Your task to perform on an android device: turn off airplane mode Image 0: 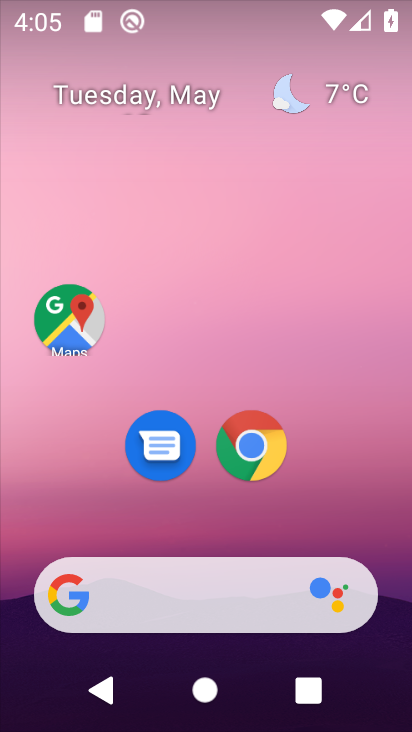
Step 0: drag from (250, 506) to (390, 436)
Your task to perform on an android device: turn off airplane mode Image 1: 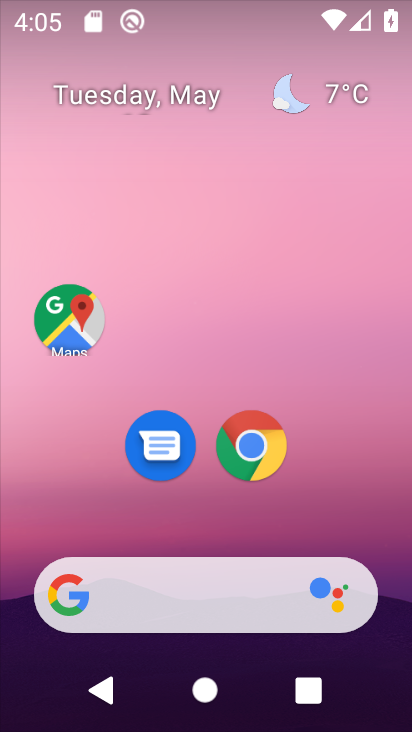
Step 1: click (335, 224)
Your task to perform on an android device: turn off airplane mode Image 2: 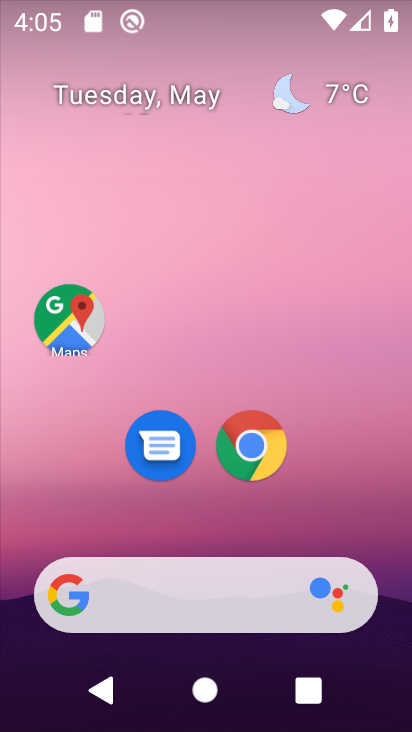
Step 2: drag from (302, 429) to (321, 16)
Your task to perform on an android device: turn off airplane mode Image 3: 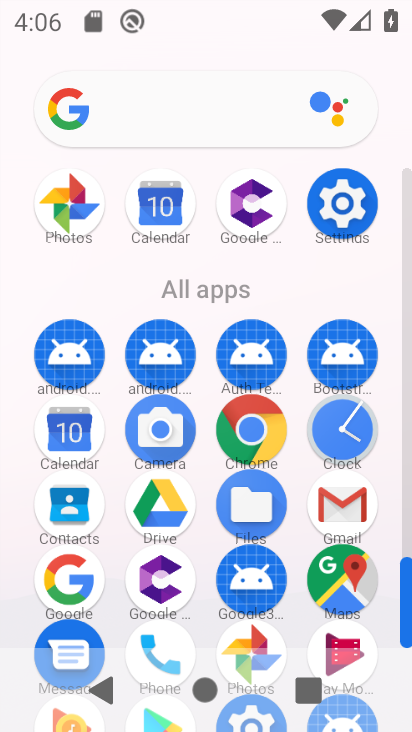
Step 3: click (353, 196)
Your task to perform on an android device: turn off airplane mode Image 4: 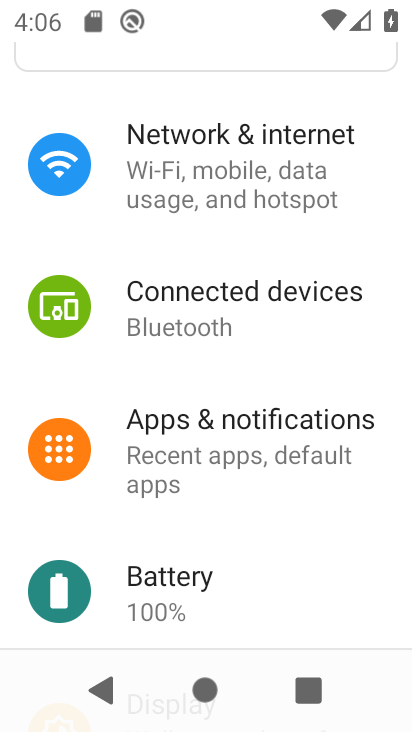
Step 4: click (238, 205)
Your task to perform on an android device: turn off airplane mode Image 5: 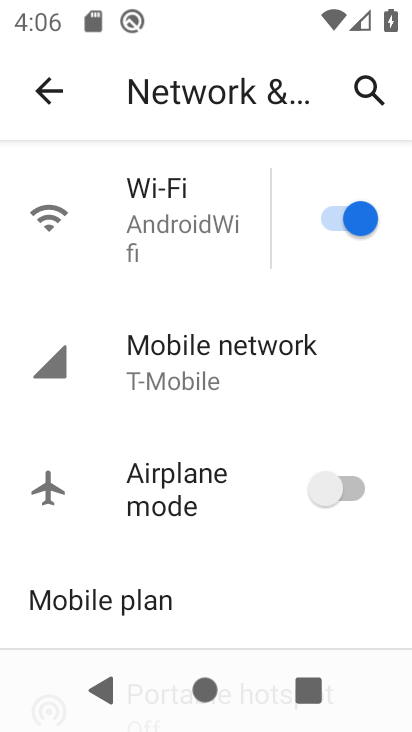
Step 5: task complete